Your task to perform on an android device: turn on data saver in the chrome app Image 0: 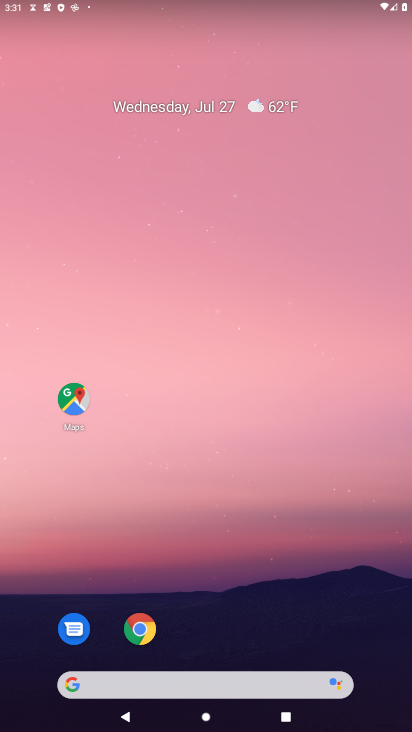
Step 0: click (140, 628)
Your task to perform on an android device: turn on data saver in the chrome app Image 1: 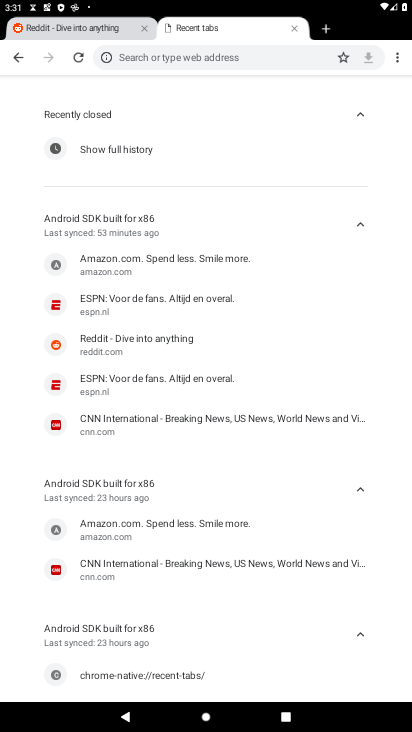
Step 1: click (397, 57)
Your task to perform on an android device: turn on data saver in the chrome app Image 2: 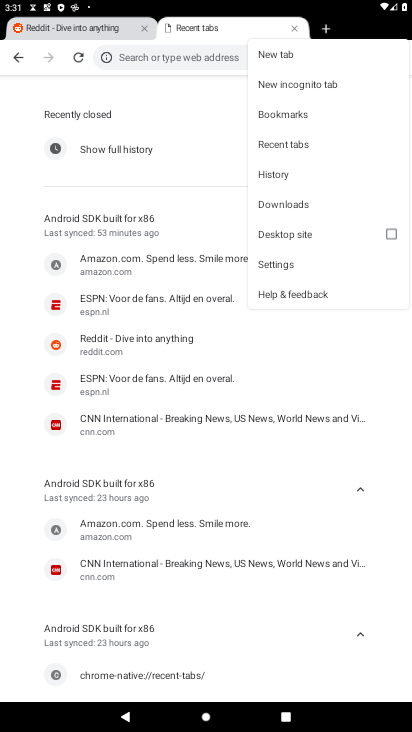
Step 2: click (279, 264)
Your task to perform on an android device: turn on data saver in the chrome app Image 3: 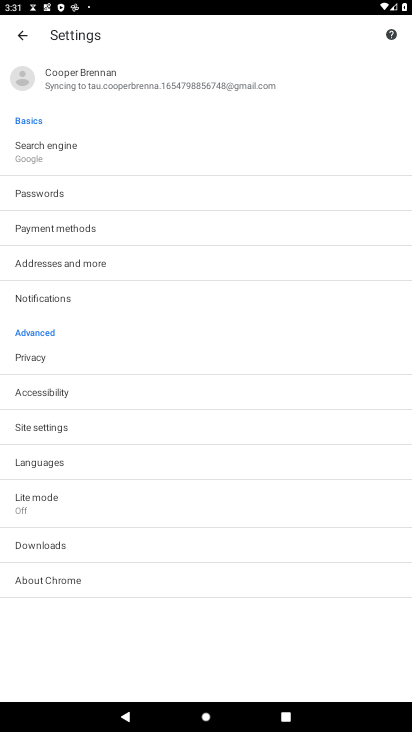
Step 3: click (43, 502)
Your task to perform on an android device: turn on data saver in the chrome app Image 4: 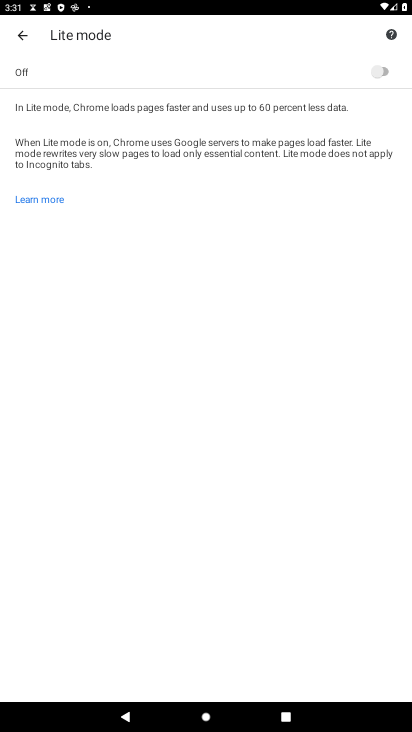
Step 4: click (381, 70)
Your task to perform on an android device: turn on data saver in the chrome app Image 5: 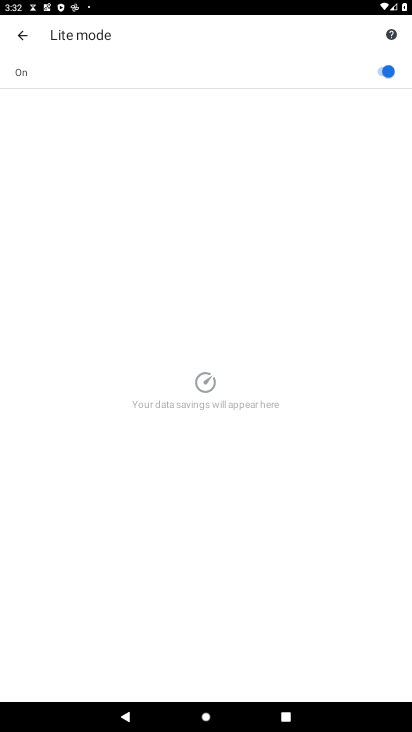
Step 5: task complete